Your task to perform on an android device: When is my next appointment? Image 0: 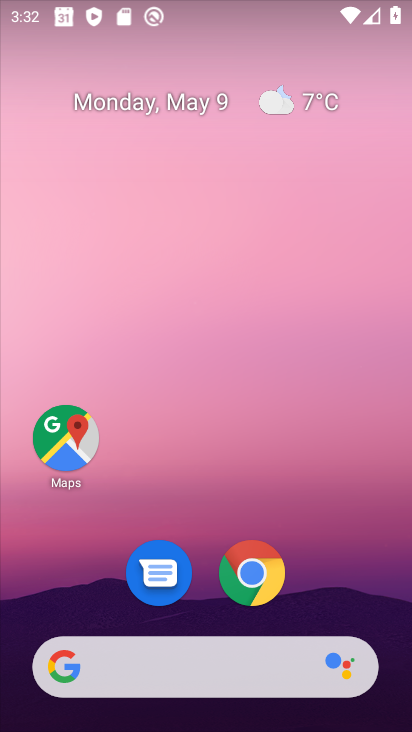
Step 0: drag from (375, 604) to (330, 4)
Your task to perform on an android device: When is my next appointment? Image 1: 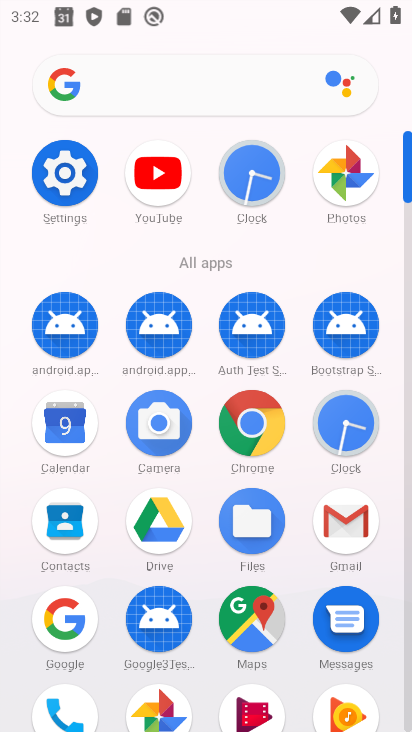
Step 1: click (65, 424)
Your task to perform on an android device: When is my next appointment? Image 2: 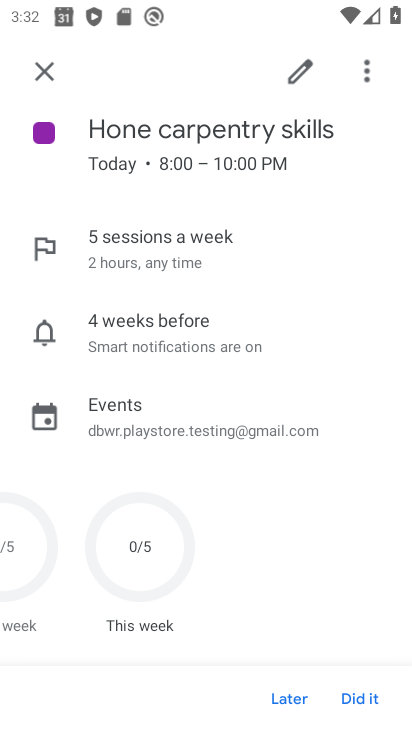
Step 2: click (32, 76)
Your task to perform on an android device: When is my next appointment? Image 3: 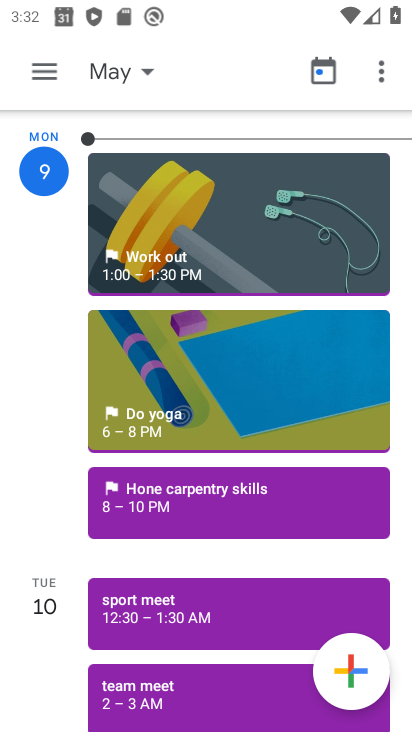
Step 3: click (211, 502)
Your task to perform on an android device: When is my next appointment? Image 4: 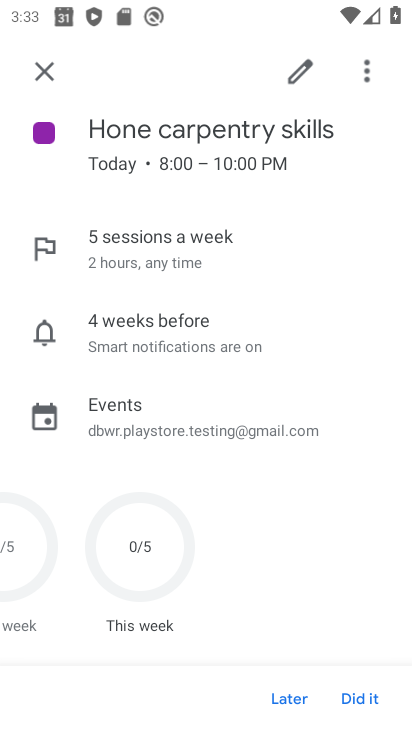
Step 4: task complete